Your task to perform on an android device: Open Yahoo.com Image 0: 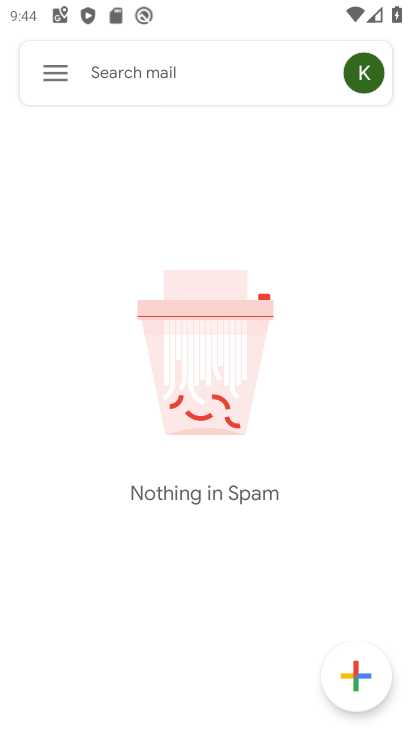
Step 0: press home button
Your task to perform on an android device: Open Yahoo.com Image 1: 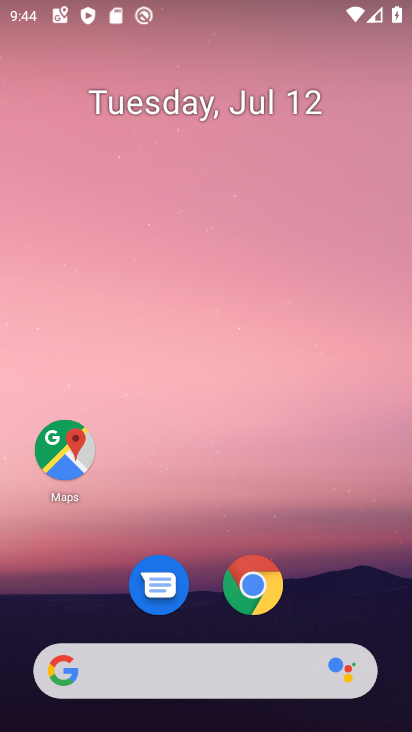
Step 1: click (249, 588)
Your task to perform on an android device: Open Yahoo.com Image 2: 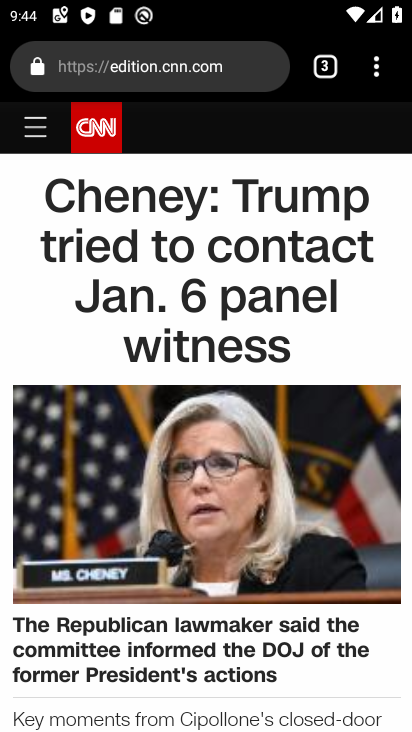
Step 2: drag from (382, 73) to (217, 124)
Your task to perform on an android device: Open Yahoo.com Image 3: 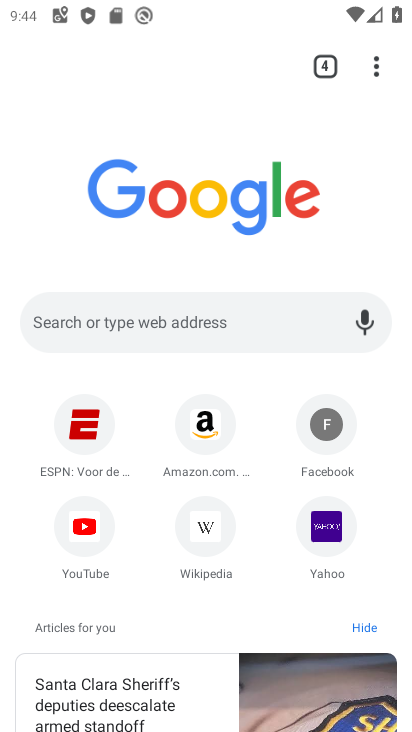
Step 3: click (317, 531)
Your task to perform on an android device: Open Yahoo.com Image 4: 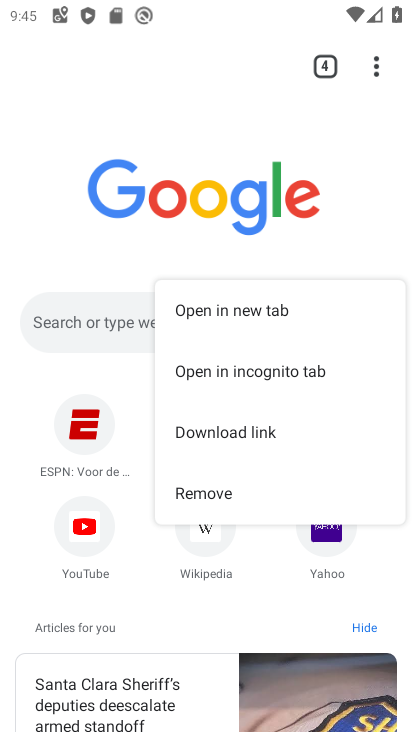
Step 4: click (317, 534)
Your task to perform on an android device: Open Yahoo.com Image 5: 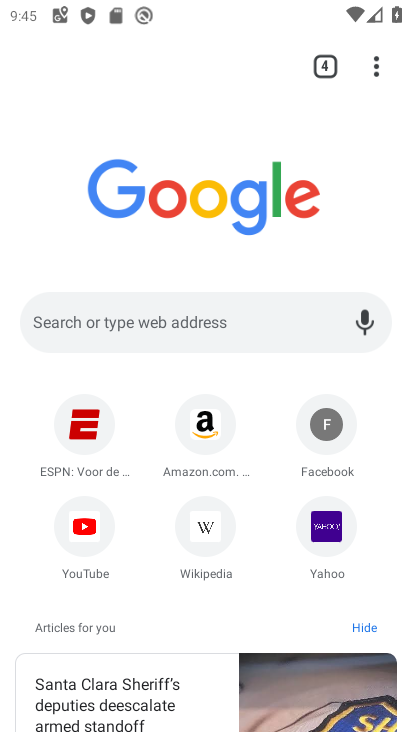
Step 5: click (328, 526)
Your task to perform on an android device: Open Yahoo.com Image 6: 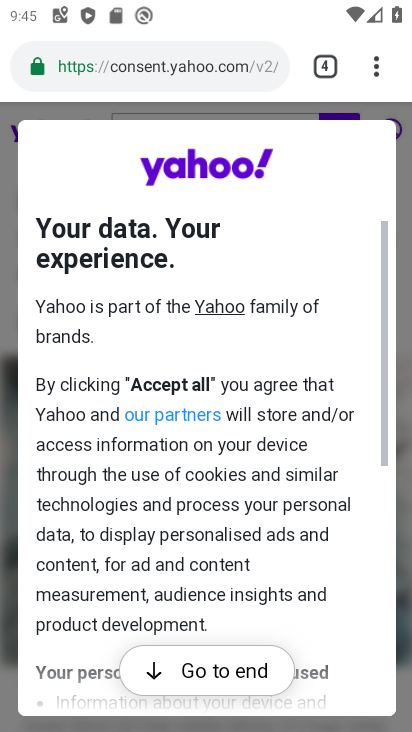
Step 6: click (197, 665)
Your task to perform on an android device: Open Yahoo.com Image 7: 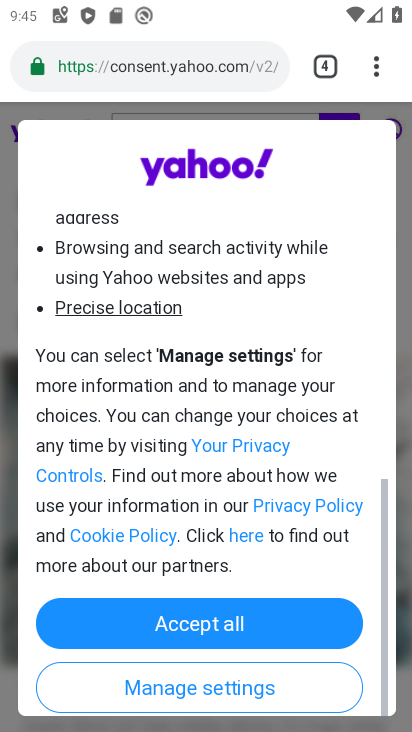
Step 7: click (227, 624)
Your task to perform on an android device: Open Yahoo.com Image 8: 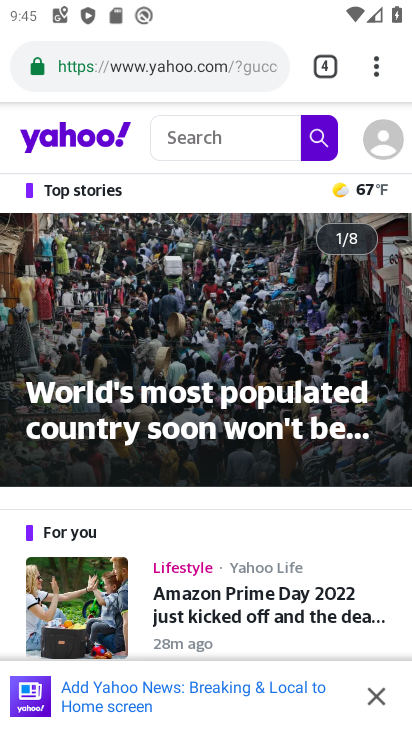
Step 8: task complete